Your task to perform on an android device: add a label to a message in the gmail app Image 0: 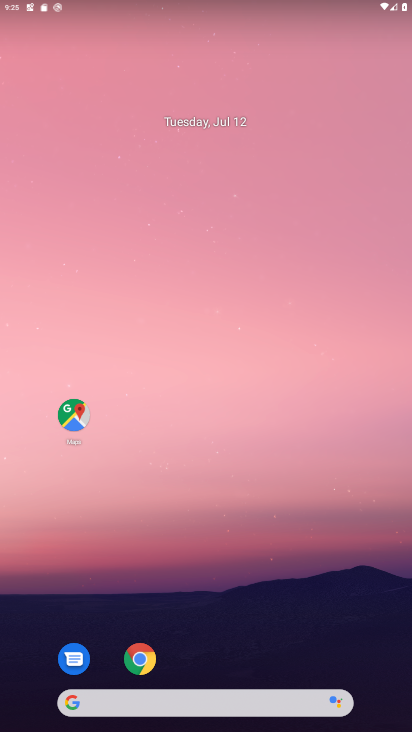
Step 0: drag from (240, 643) to (294, 4)
Your task to perform on an android device: add a label to a message in the gmail app Image 1: 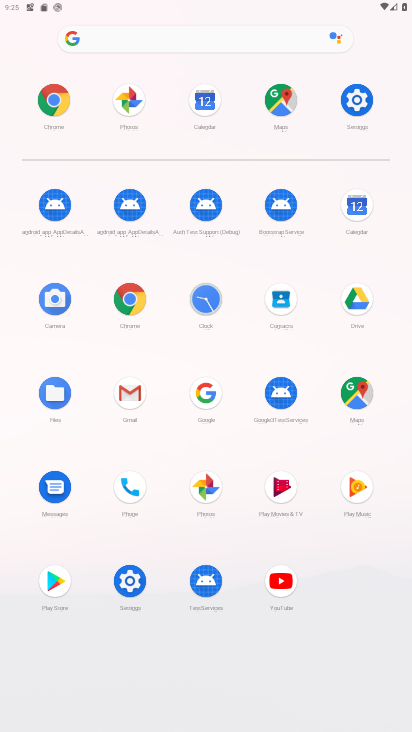
Step 1: click (135, 398)
Your task to perform on an android device: add a label to a message in the gmail app Image 2: 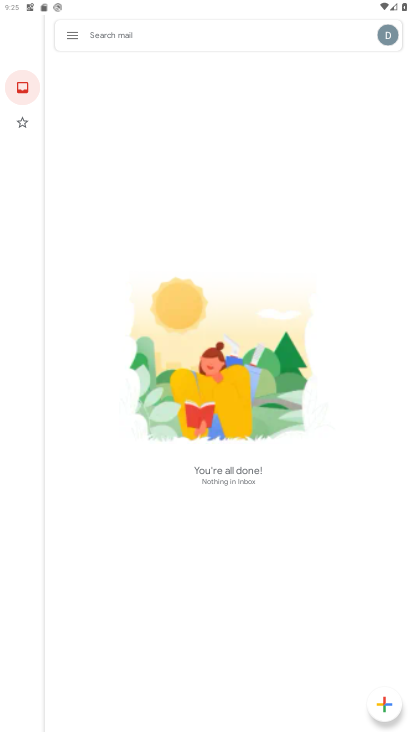
Step 2: task complete